Your task to perform on an android device: Open notification settings Image 0: 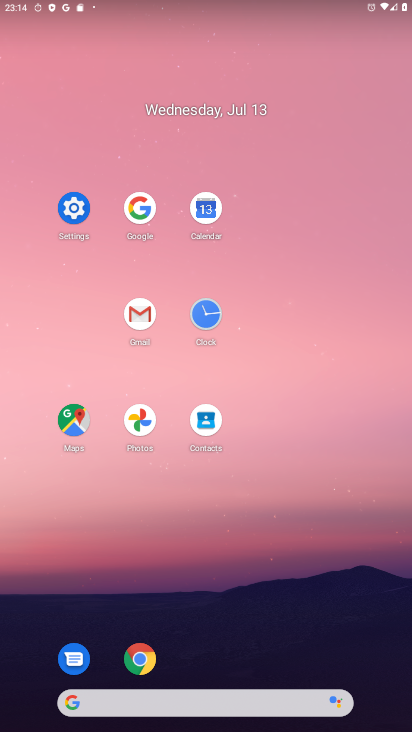
Step 0: click (69, 209)
Your task to perform on an android device: Open notification settings Image 1: 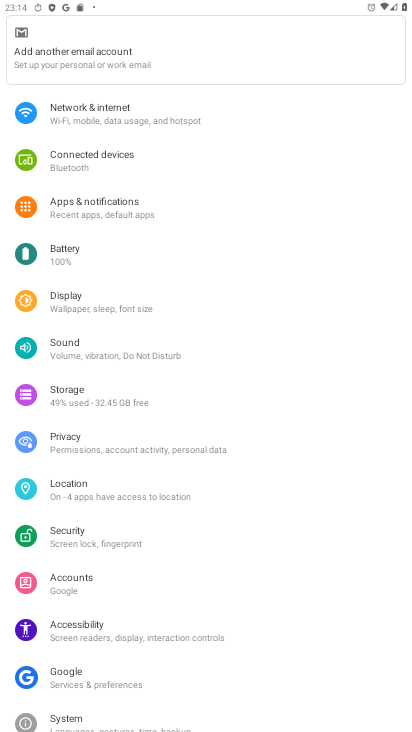
Step 1: click (175, 207)
Your task to perform on an android device: Open notification settings Image 2: 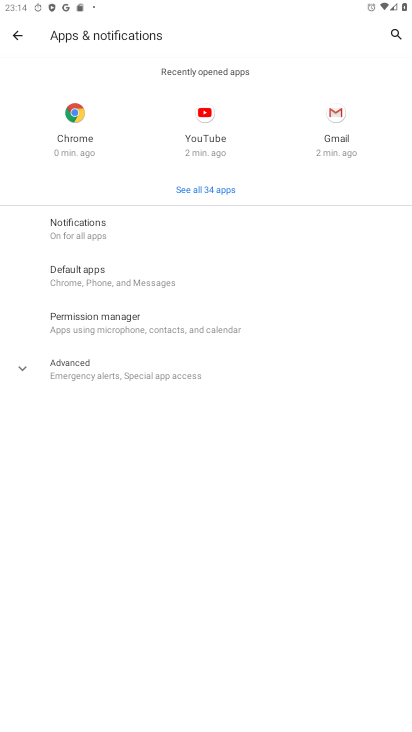
Step 2: task complete